Your task to perform on an android device: Open network settings Image 0: 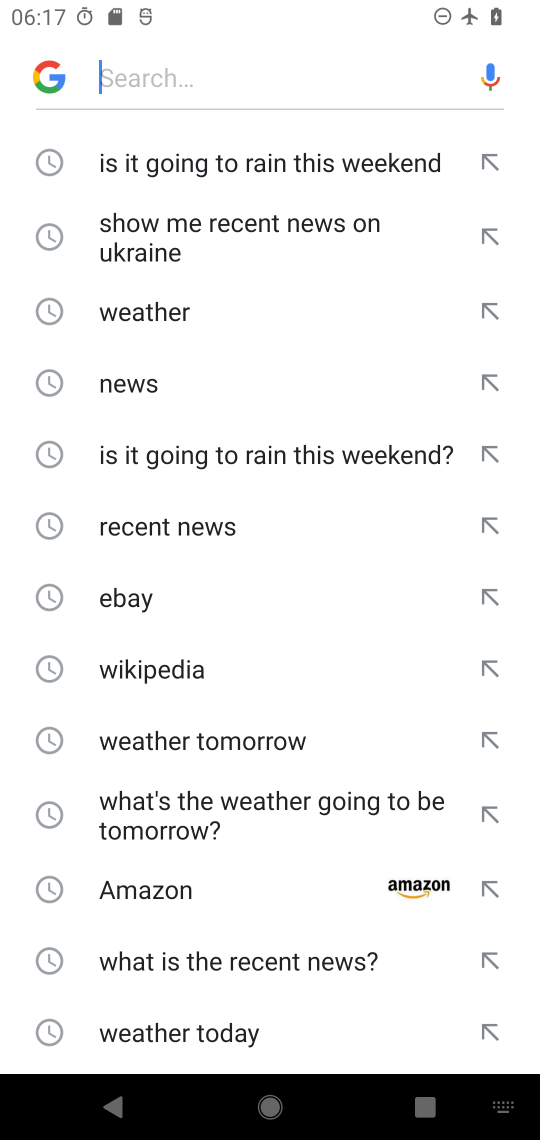
Step 0: press home button
Your task to perform on an android device: Open network settings Image 1: 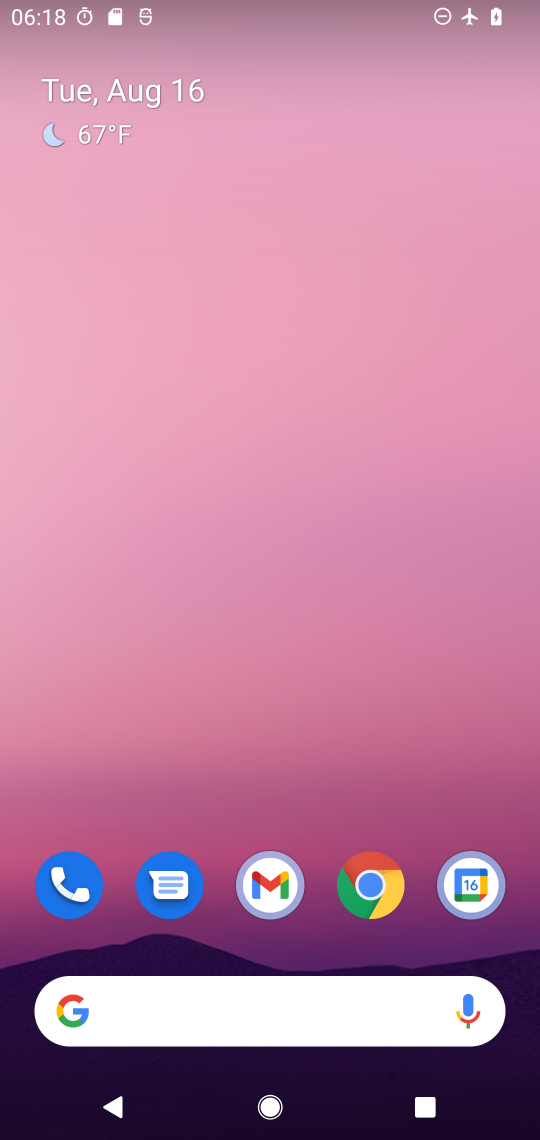
Step 1: click (194, 202)
Your task to perform on an android device: Open network settings Image 2: 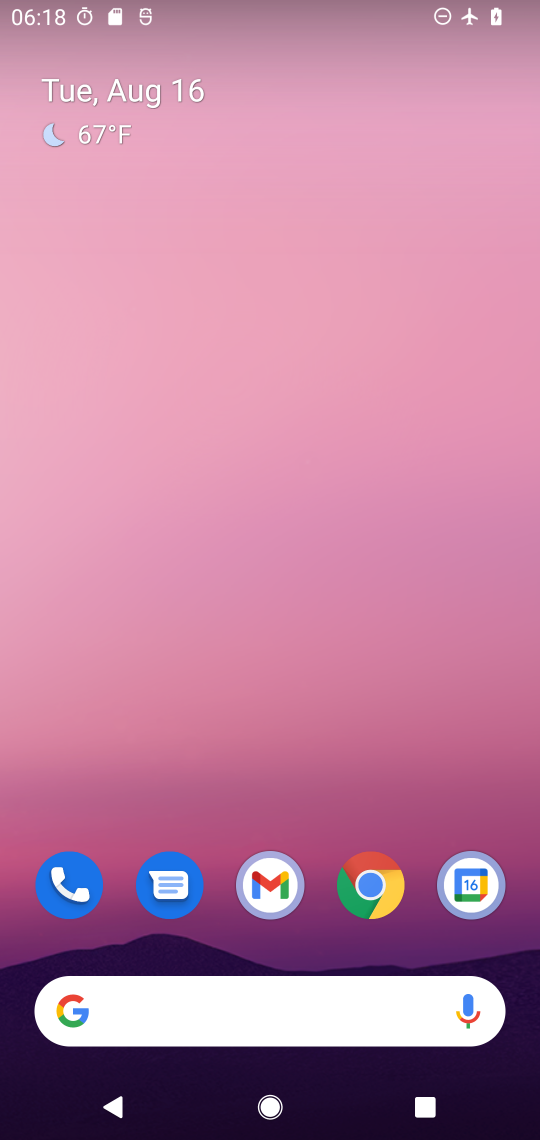
Step 2: drag from (171, 925) to (176, 200)
Your task to perform on an android device: Open network settings Image 3: 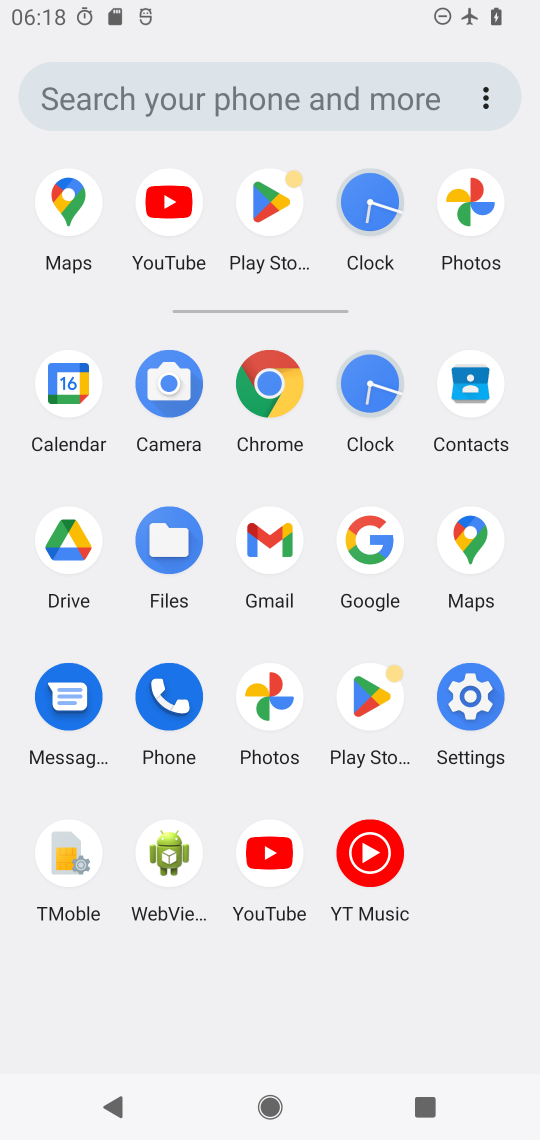
Step 3: click (474, 680)
Your task to perform on an android device: Open network settings Image 4: 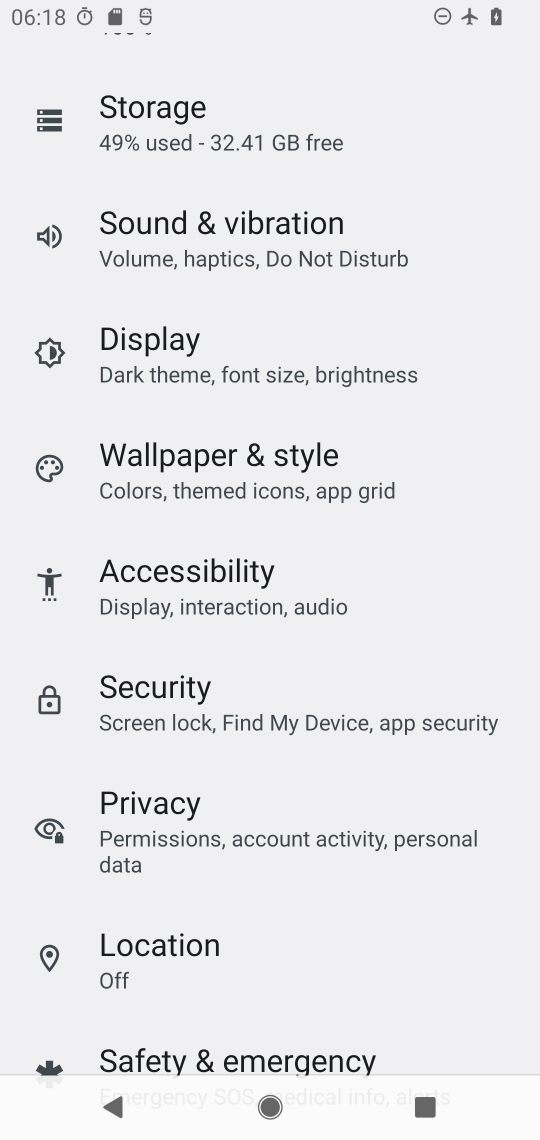
Step 4: drag from (199, 134) to (216, 920)
Your task to perform on an android device: Open network settings Image 5: 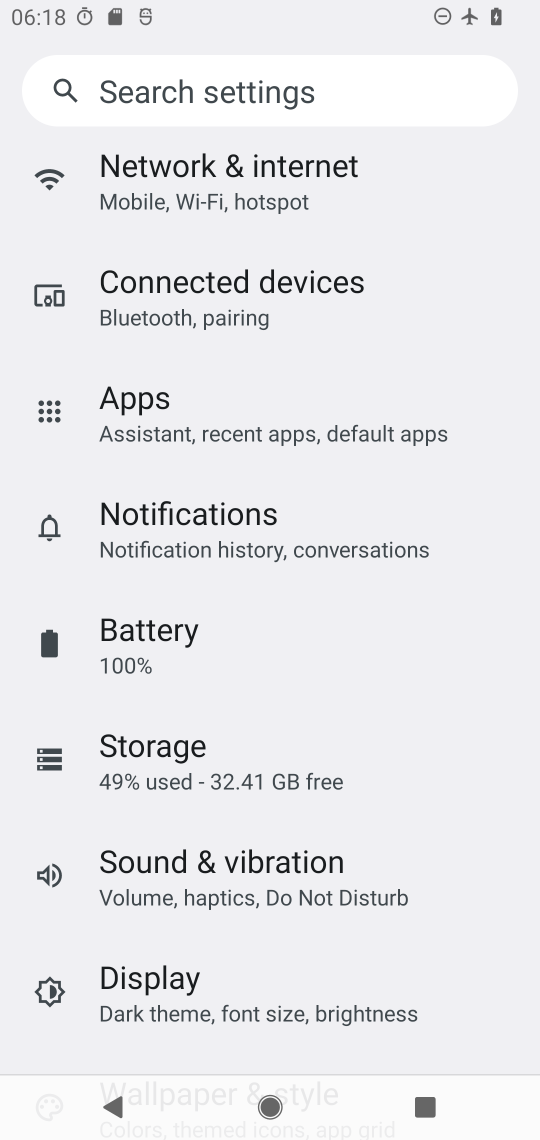
Step 5: click (178, 181)
Your task to perform on an android device: Open network settings Image 6: 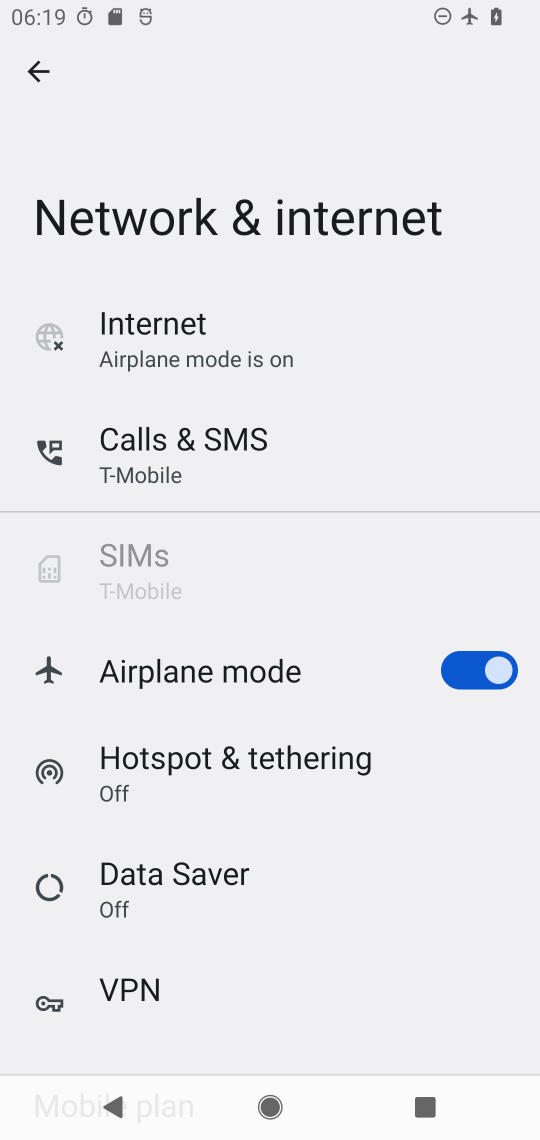
Step 6: task complete